Your task to perform on an android device: Open Yahoo.com Image 0: 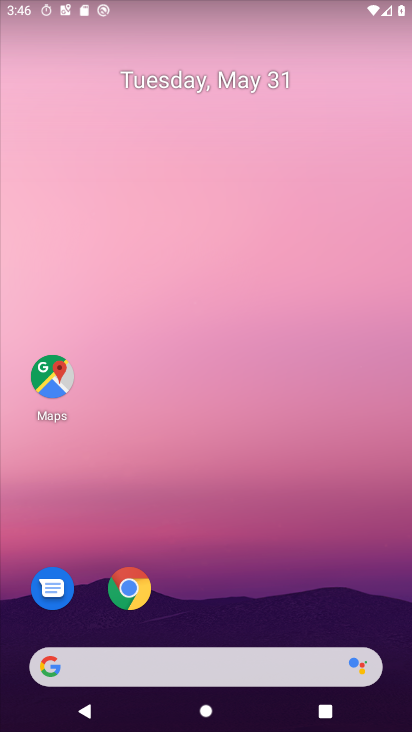
Step 0: drag from (230, 667) to (300, 102)
Your task to perform on an android device: Open Yahoo.com Image 1: 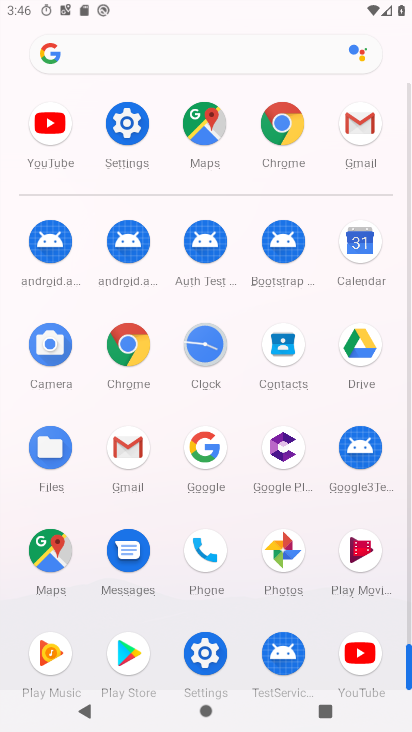
Step 1: click (136, 350)
Your task to perform on an android device: Open Yahoo.com Image 2: 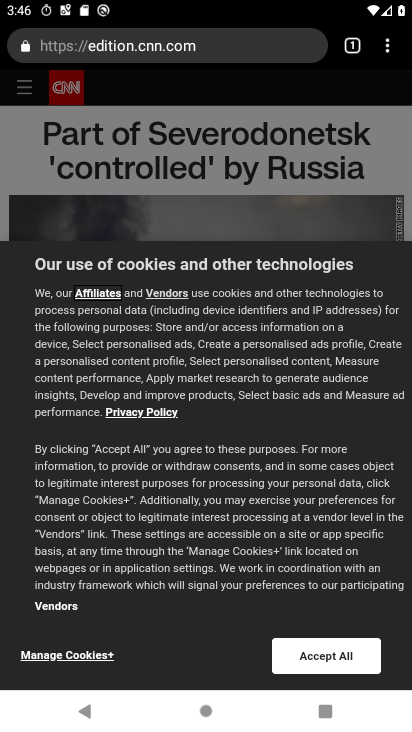
Step 2: click (236, 53)
Your task to perform on an android device: Open Yahoo.com Image 3: 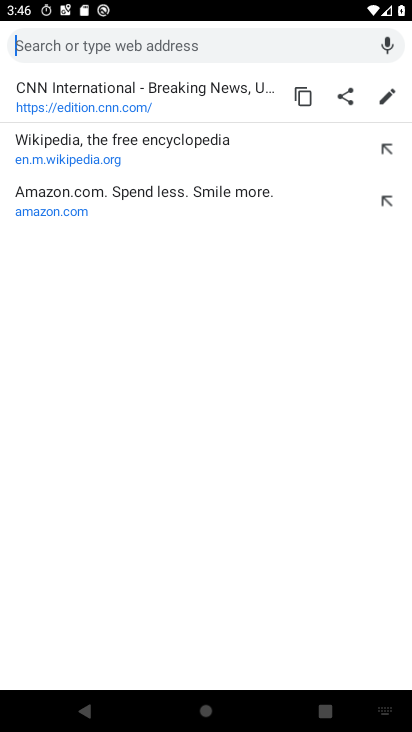
Step 3: type "yahoo"
Your task to perform on an android device: Open Yahoo.com Image 4: 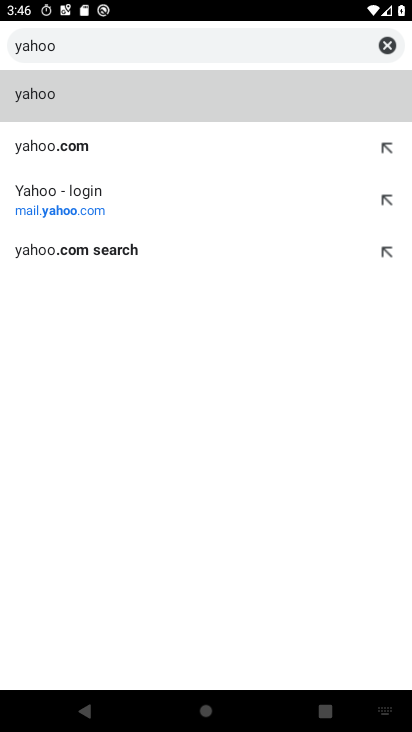
Step 4: click (95, 151)
Your task to perform on an android device: Open Yahoo.com Image 5: 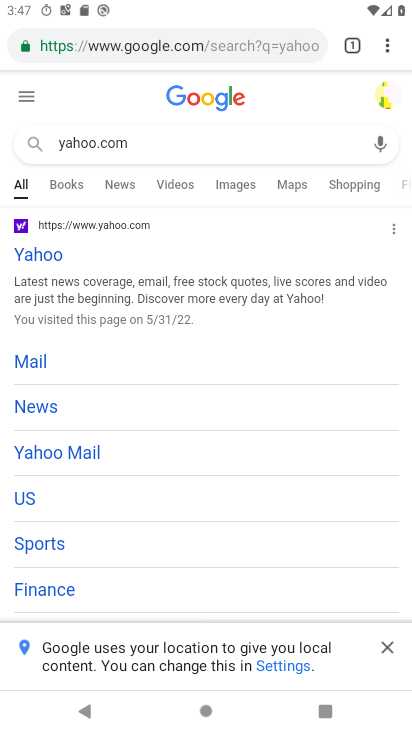
Step 5: click (63, 258)
Your task to perform on an android device: Open Yahoo.com Image 6: 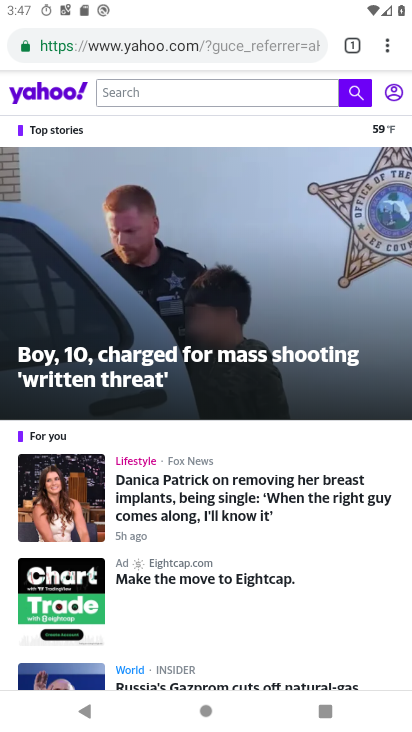
Step 6: task complete